Your task to perform on an android device: Open eBay Image 0: 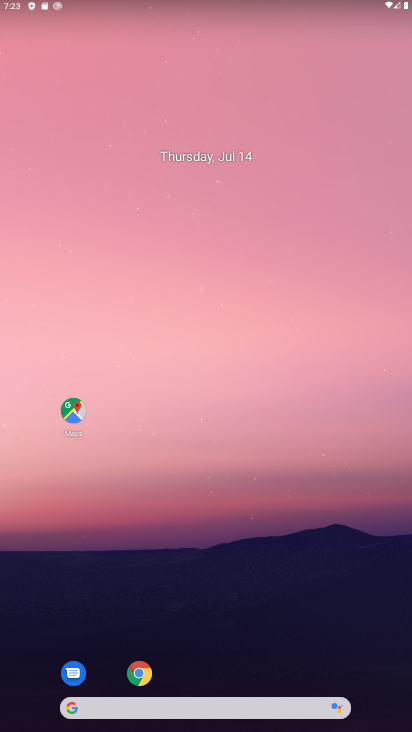
Step 0: drag from (344, 648) to (363, 73)
Your task to perform on an android device: Open eBay Image 1: 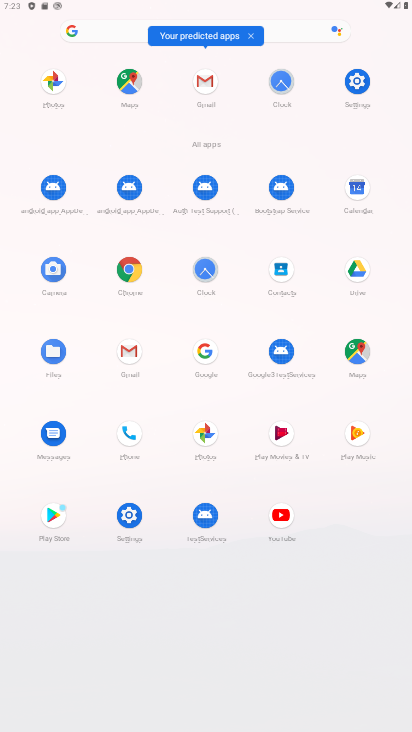
Step 1: click (130, 271)
Your task to perform on an android device: Open eBay Image 2: 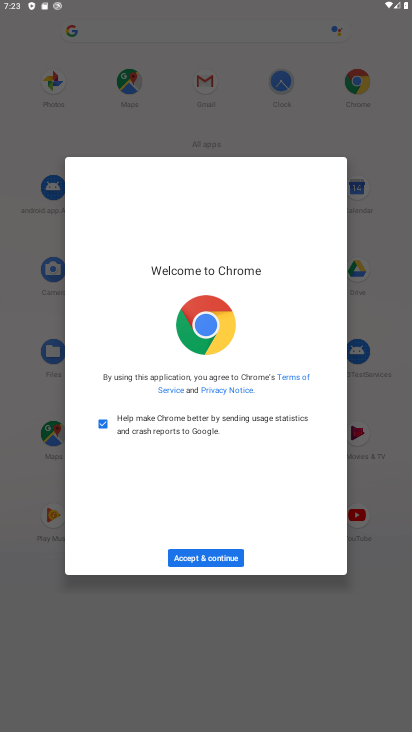
Step 2: click (197, 561)
Your task to perform on an android device: Open eBay Image 3: 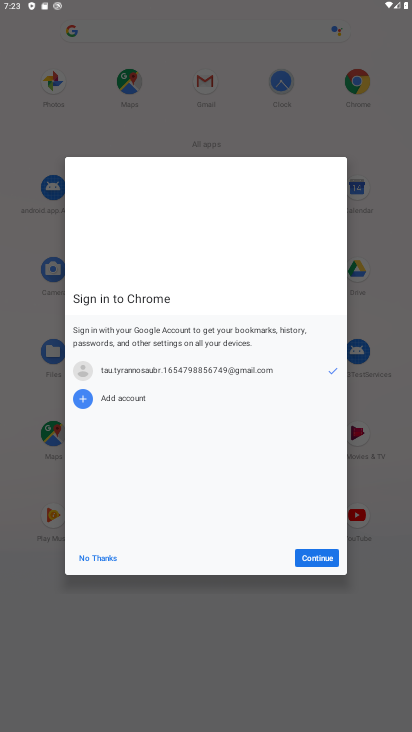
Step 3: click (305, 552)
Your task to perform on an android device: Open eBay Image 4: 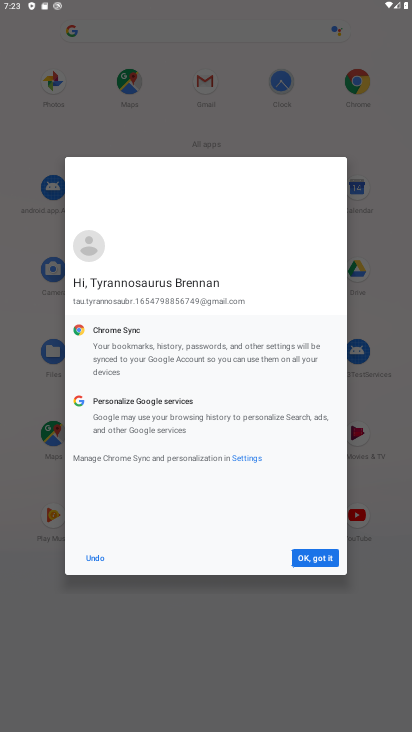
Step 4: click (305, 552)
Your task to perform on an android device: Open eBay Image 5: 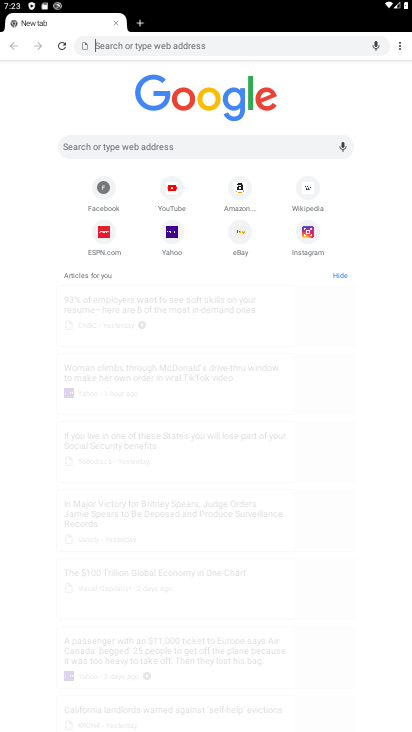
Step 5: click (202, 141)
Your task to perform on an android device: Open eBay Image 6: 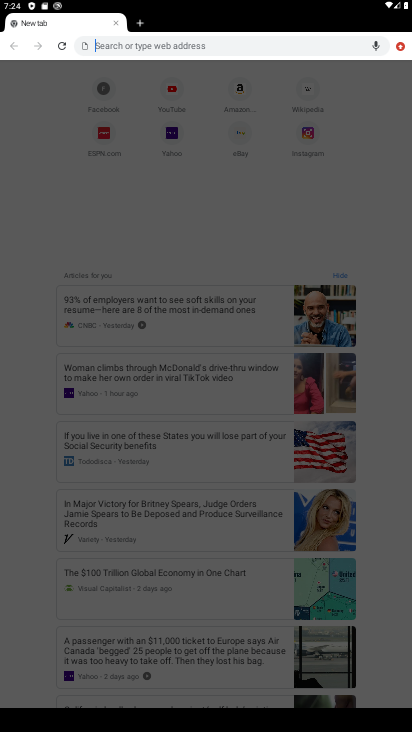
Step 6: type "ebay"
Your task to perform on an android device: Open eBay Image 7: 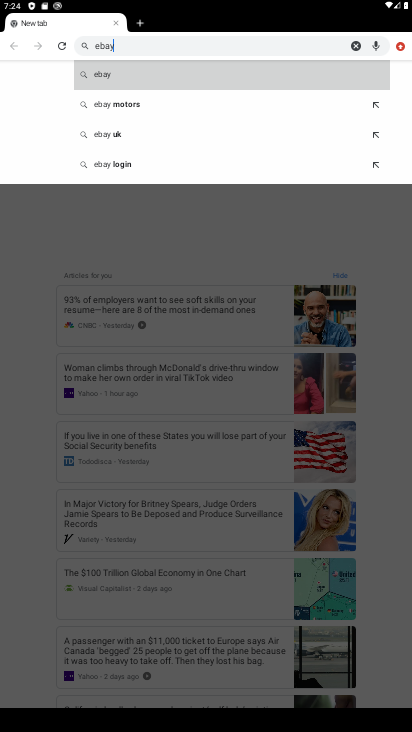
Step 7: click (292, 68)
Your task to perform on an android device: Open eBay Image 8: 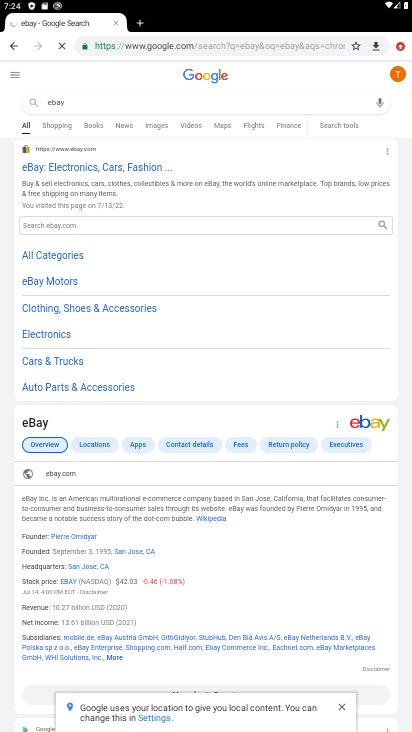
Step 8: task complete